Your task to perform on an android device: delete location history Image 0: 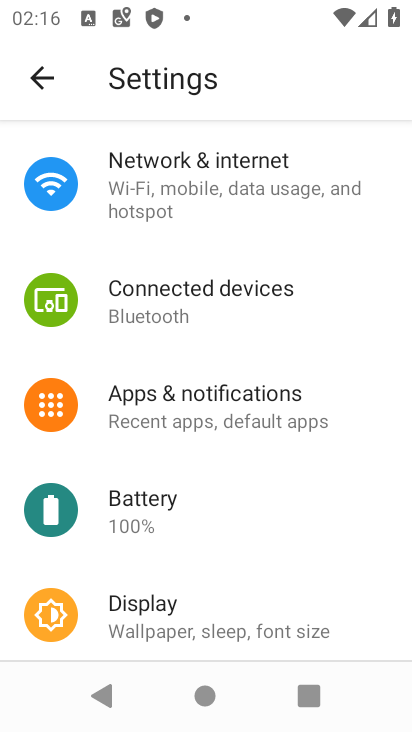
Step 0: press home button
Your task to perform on an android device: delete location history Image 1: 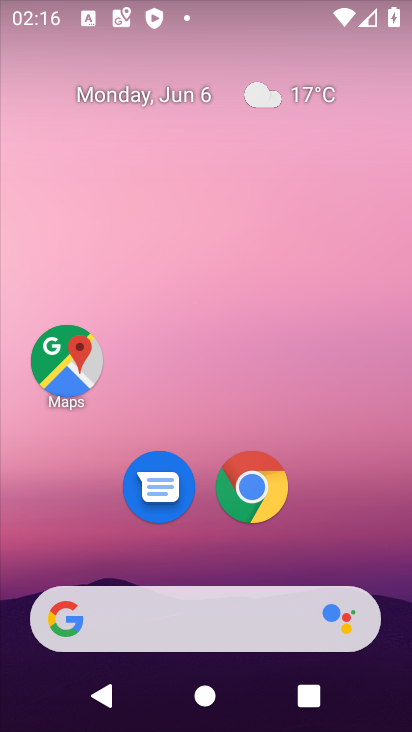
Step 1: click (69, 363)
Your task to perform on an android device: delete location history Image 2: 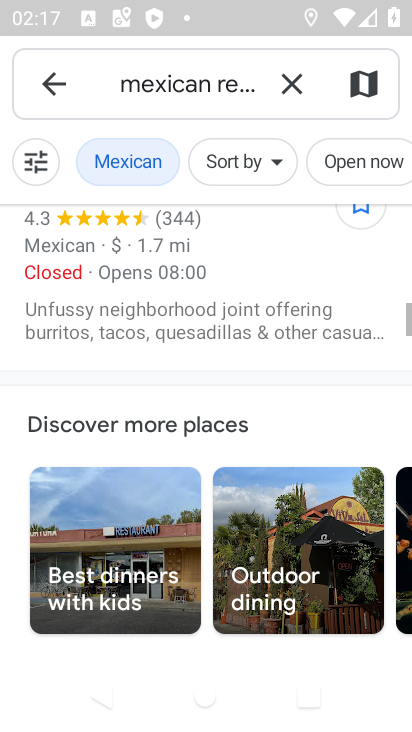
Step 2: click (291, 81)
Your task to perform on an android device: delete location history Image 3: 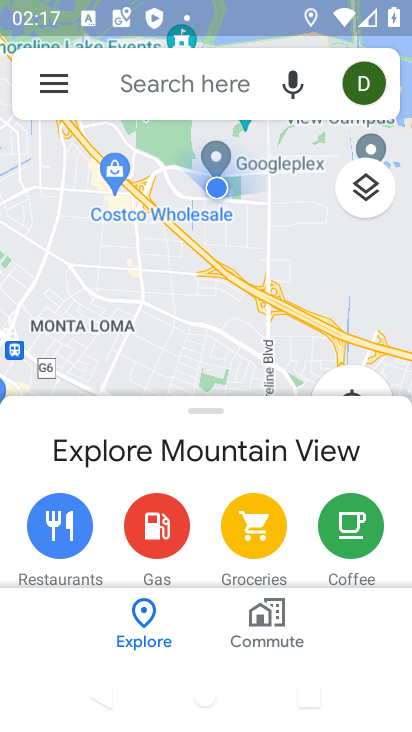
Step 3: click (52, 85)
Your task to perform on an android device: delete location history Image 4: 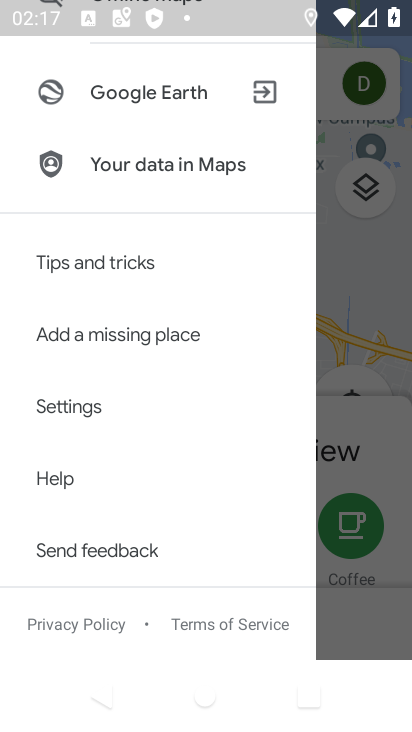
Step 4: click (87, 402)
Your task to perform on an android device: delete location history Image 5: 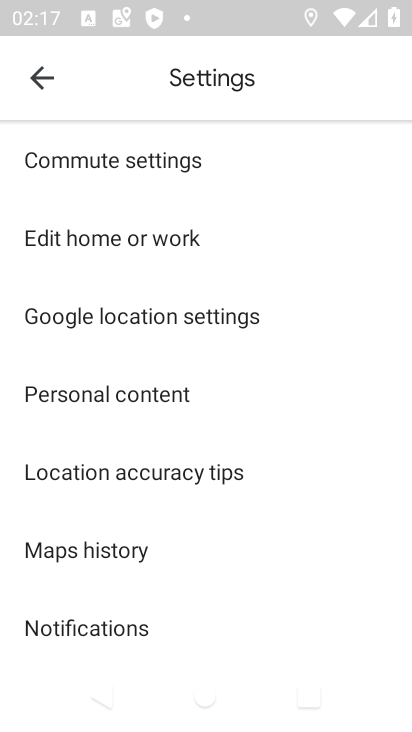
Step 5: click (85, 381)
Your task to perform on an android device: delete location history Image 6: 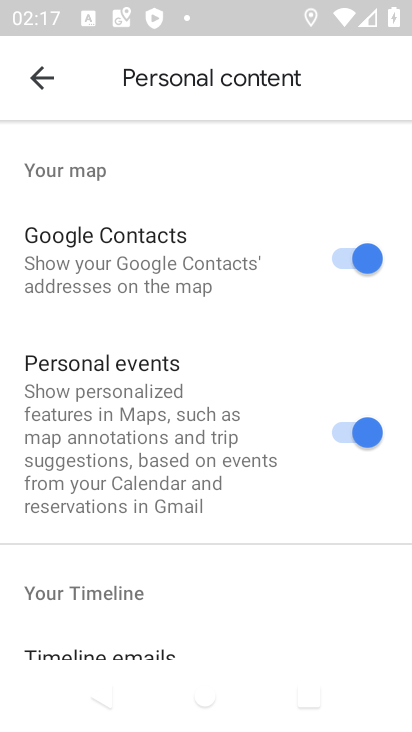
Step 6: drag from (268, 585) to (230, 145)
Your task to perform on an android device: delete location history Image 7: 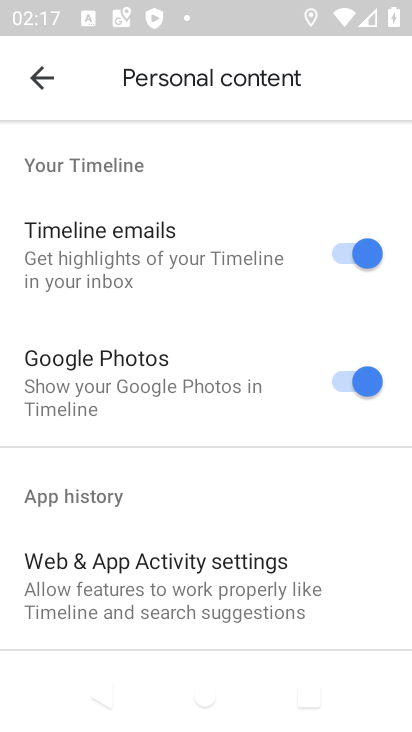
Step 7: drag from (266, 507) to (200, 64)
Your task to perform on an android device: delete location history Image 8: 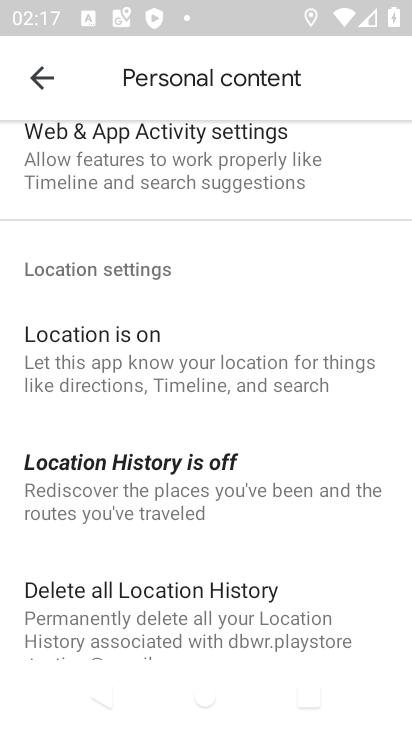
Step 8: drag from (187, 616) to (172, 253)
Your task to perform on an android device: delete location history Image 9: 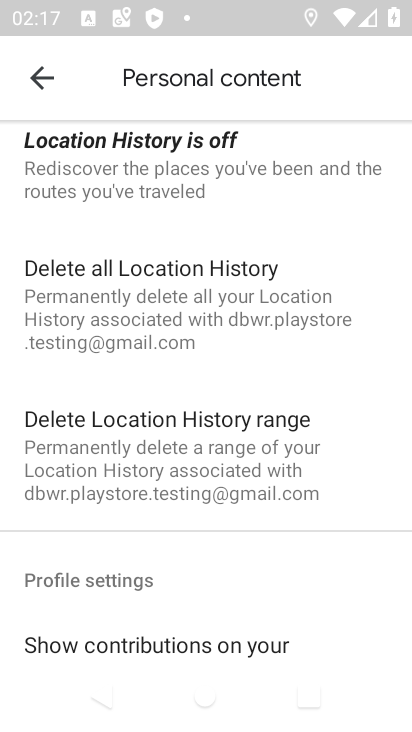
Step 9: click (35, 309)
Your task to perform on an android device: delete location history Image 10: 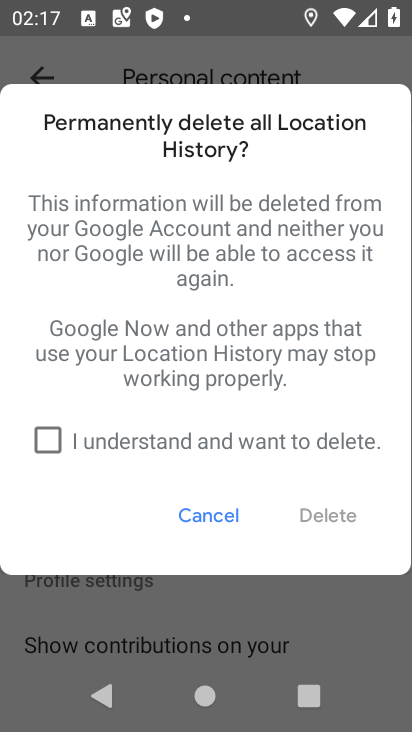
Step 10: click (44, 434)
Your task to perform on an android device: delete location history Image 11: 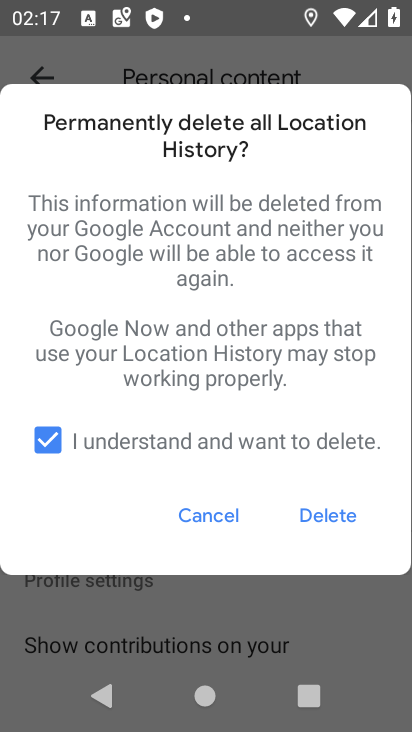
Step 11: click (330, 514)
Your task to perform on an android device: delete location history Image 12: 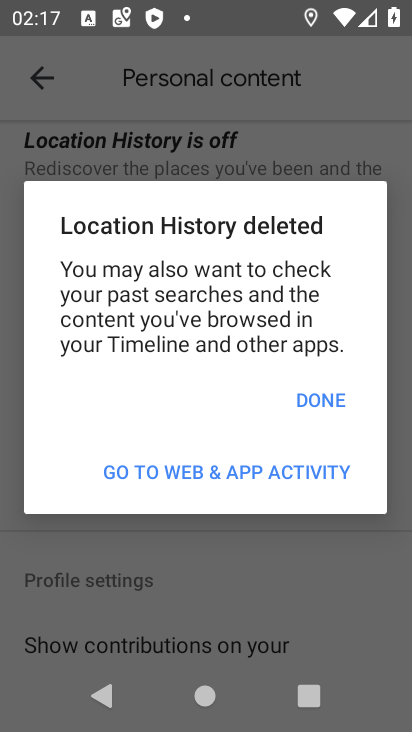
Step 12: click (315, 390)
Your task to perform on an android device: delete location history Image 13: 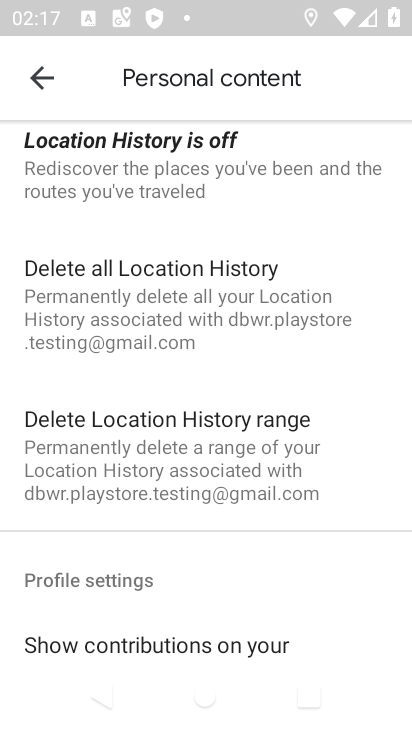
Step 13: task complete